Your task to perform on an android device: Go to CNN.com Image 0: 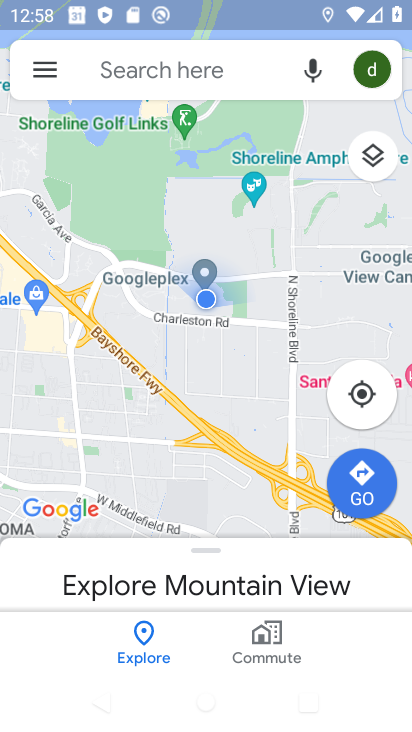
Step 0: press home button
Your task to perform on an android device: Go to CNN.com Image 1: 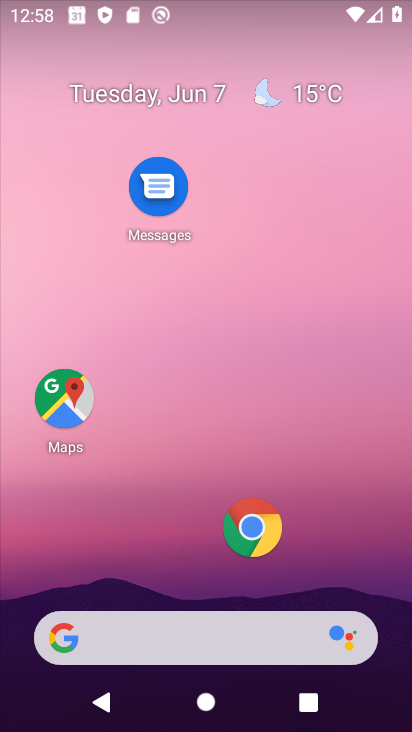
Step 1: drag from (184, 616) to (170, 349)
Your task to perform on an android device: Go to CNN.com Image 2: 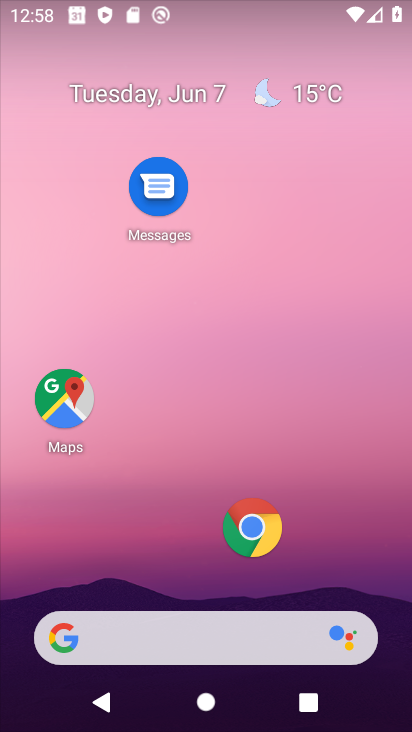
Step 2: drag from (150, 626) to (154, 293)
Your task to perform on an android device: Go to CNN.com Image 3: 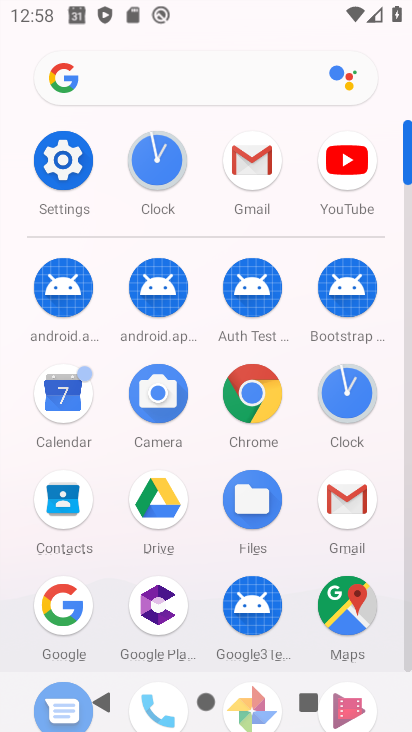
Step 3: click (69, 607)
Your task to perform on an android device: Go to CNN.com Image 4: 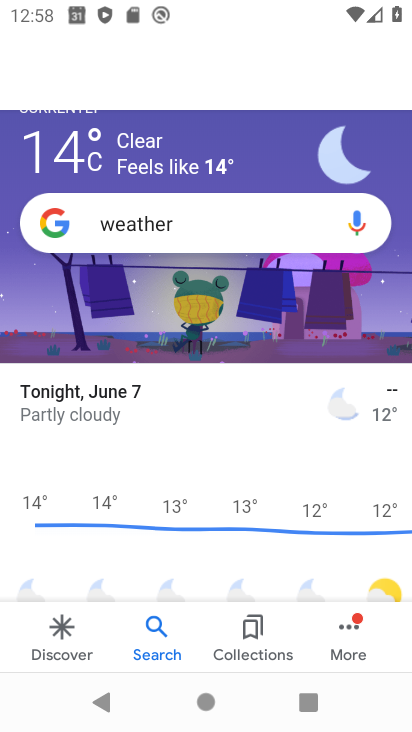
Step 4: click (148, 226)
Your task to perform on an android device: Go to CNN.com Image 5: 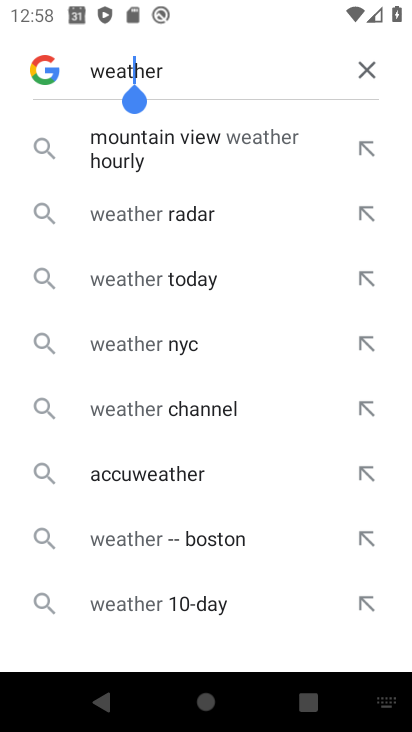
Step 5: click (358, 70)
Your task to perform on an android device: Go to CNN.com Image 6: 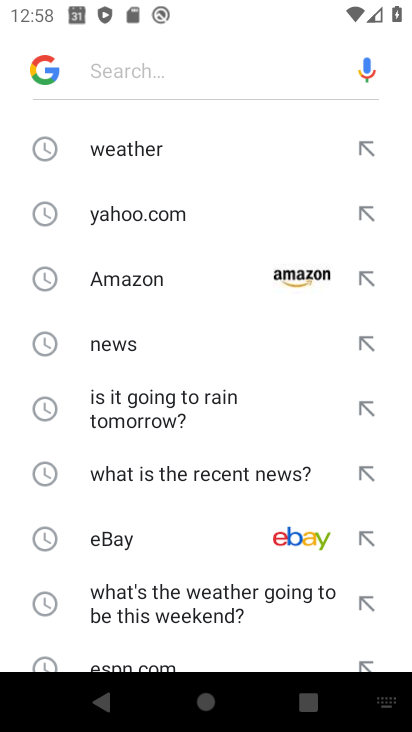
Step 6: drag from (136, 611) to (139, 298)
Your task to perform on an android device: Go to CNN.com Image 7: 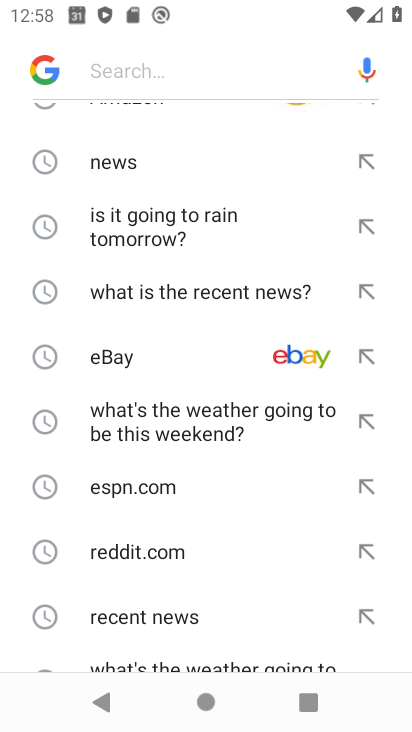
Step 7: drag from (135, 657) to (123, 359)
Your task to perform on an android device: Go to CNN.com Image 8: 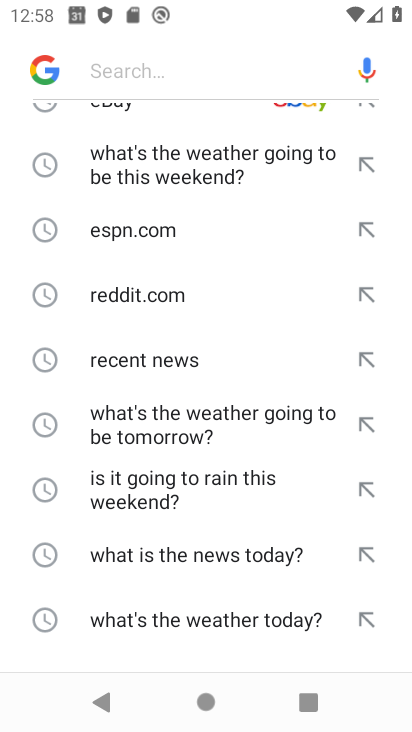
Step 8: drag from (160, 633) to (160, 383)
Your task to perform on an android device: Go to CNN.com Image 9: 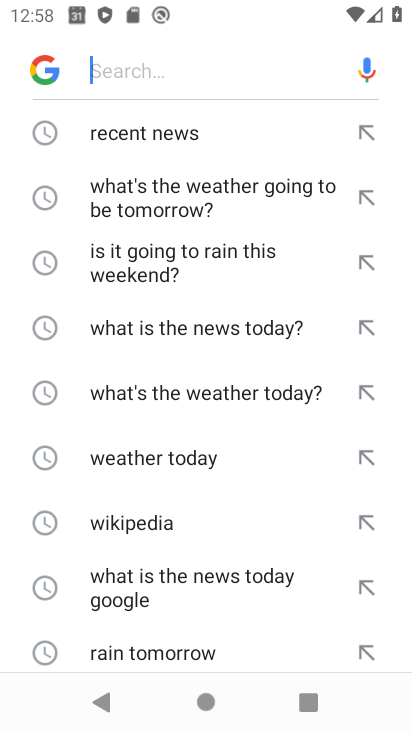
Step 9: drag from (155, 664) to (135, 397)
Your task to perform on an android device: Go to CNN.com Image 10: 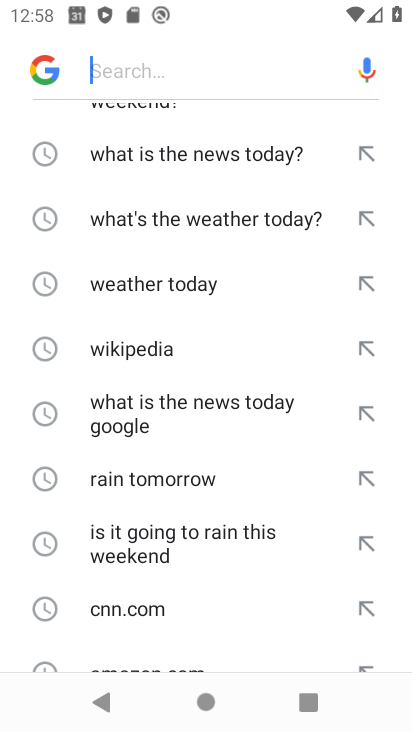
Step 10: click (107, 609)
Your task to perform on an android device: Go to CNN.com Image 11: 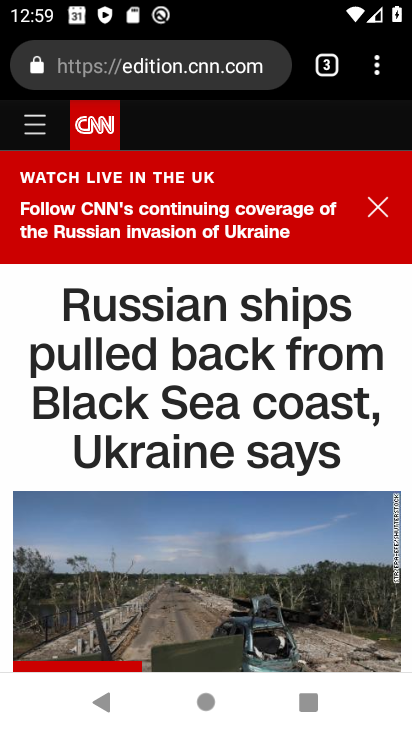
Step 11: task complete